Your task to perform on an android device: Open Yahoo.com Image 0: 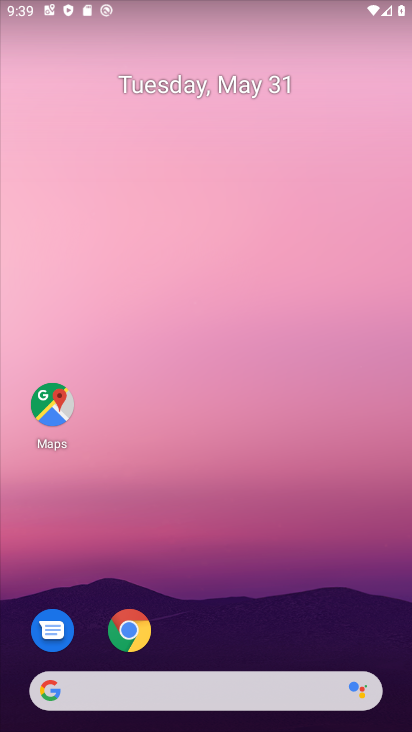
Step 0: drag from (213, 651) to (202, 251)
Your task to perform on an android device: Open Yahoo.com Image 1: 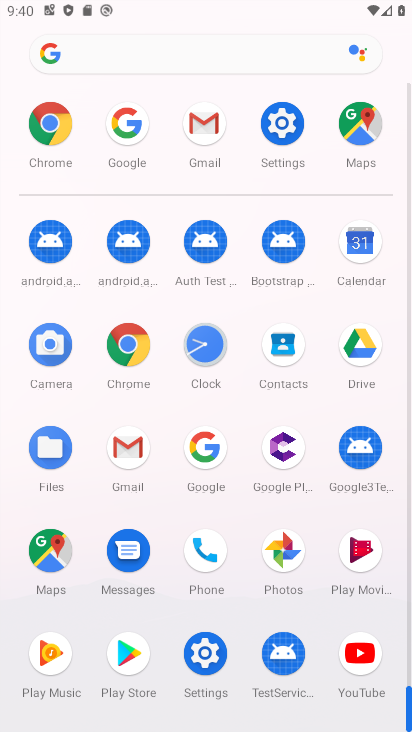
Step 1: click (51, 155)
Your task to perform on an android device: Open Yahoo.com Image 2: 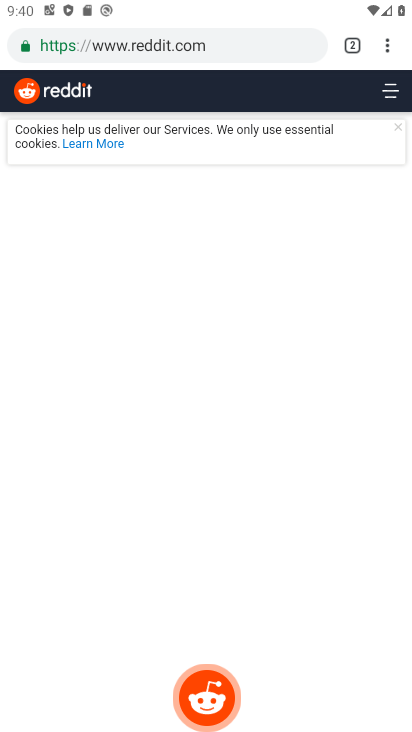
Step 2: click (138, 48)
Your task to perform on an android device: Open Yahoo.com Image 3: 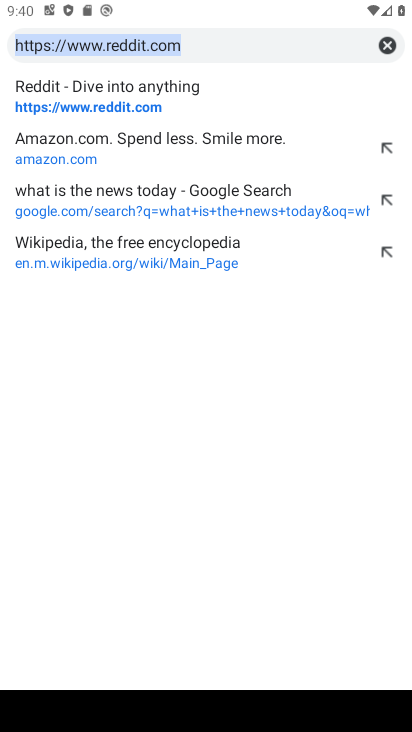
Step 3: type "yahoo"
Your task to perform on an android device: Open Yahoo.com Image 4: 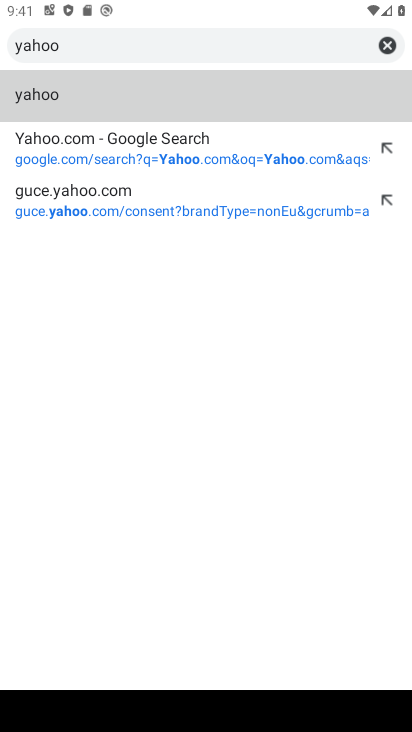
Step 4: click (171, 159)
Your task to perform on an android device: Open Yahoo.com Image 5: 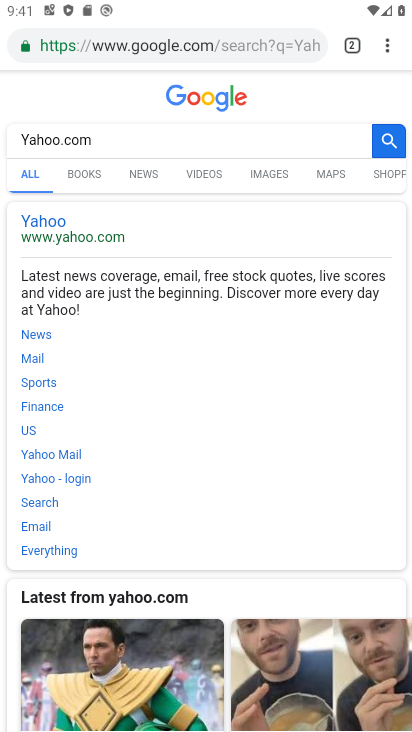
Step 5: click (43, 219)
Your task to perform on an android device: Open Yahoo.com Image 6: 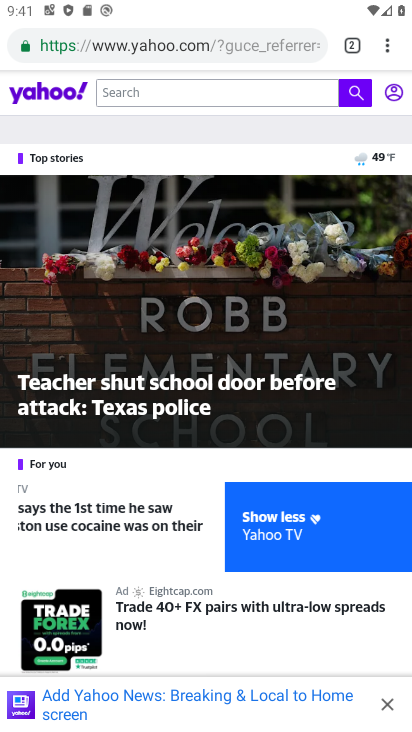
Step 6: task complete